Your task to perform on an android device: move a message to another label in the gmail app Image 0: 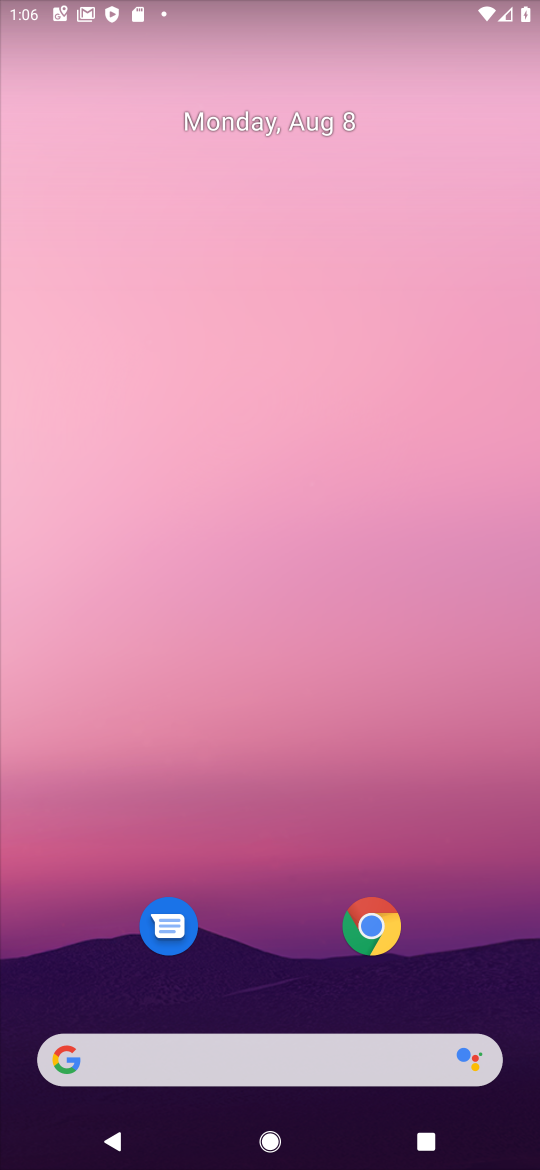
Step 0: click (298, 920)
Your task to perform on an android device: move a message to another label in the gmail app Image 1: 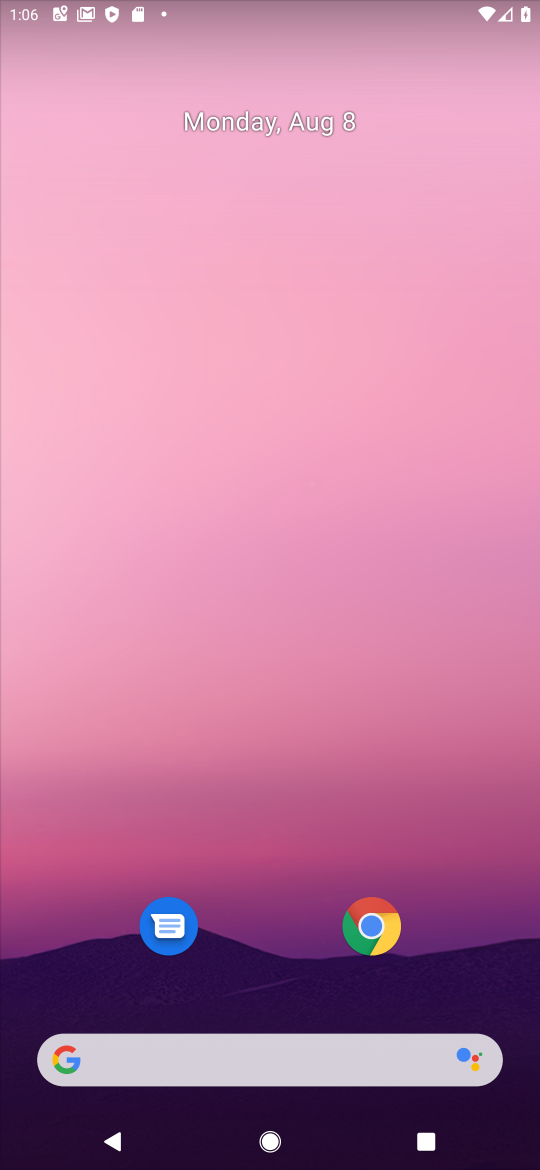
Step 1: drag from (278, 927) to (318, 213)
Your task to perform on an android device: move a message to another label in the gmail app Image 2: 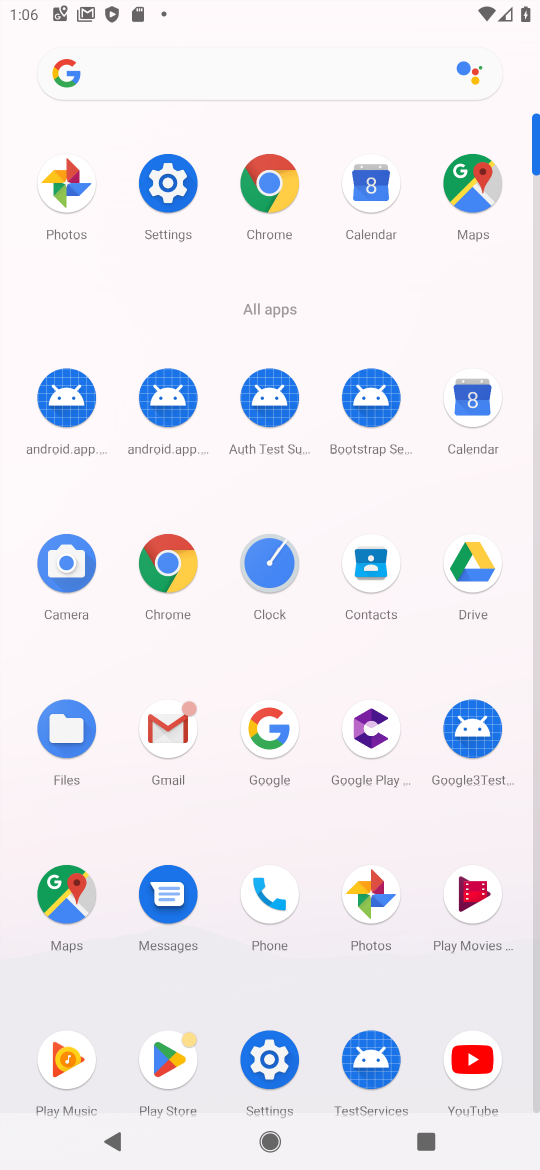
Step 2: click (174, 718)
Your task to perform on an android device: move a message to another label in the gmail app Image 3: 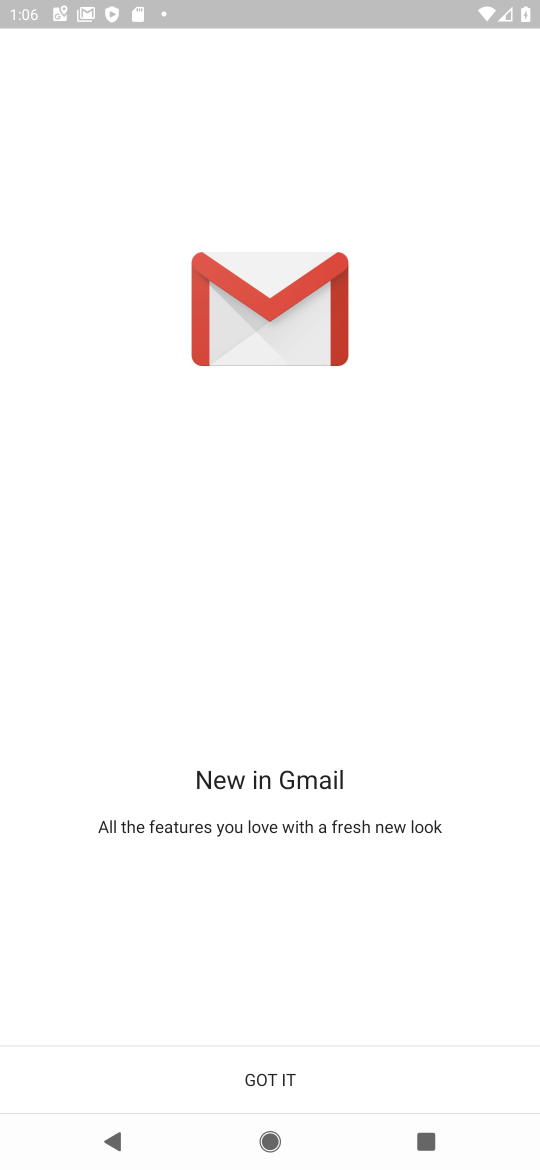
Step 3: click (303, 1079)
Your task to perform on an android device: move a message to another label in the gmail app Image 4: 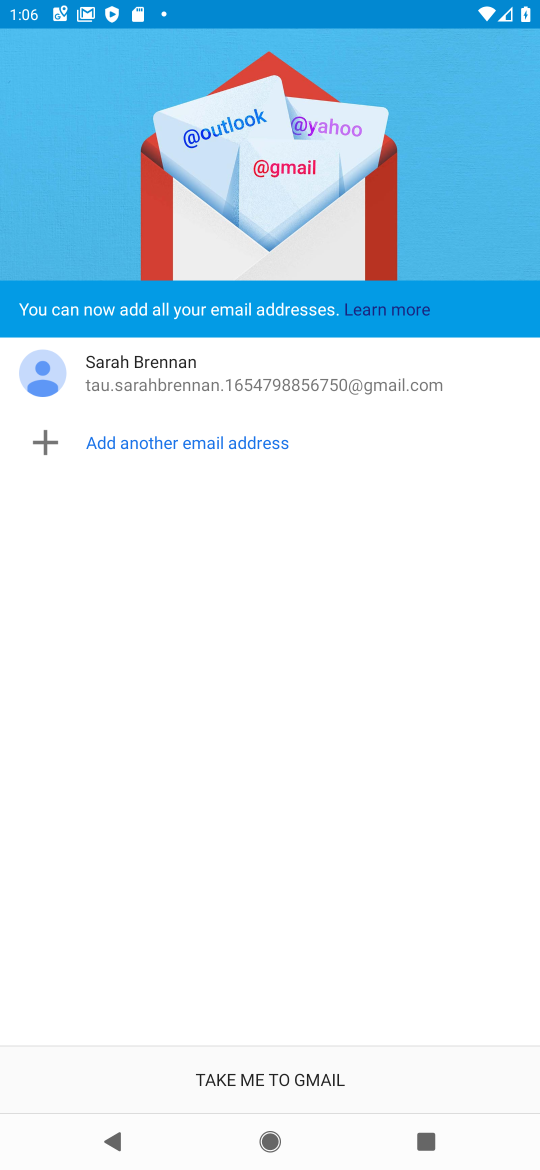
Step 4: click (303, 1079)
Your task to perform on an android device: move a message to another label in the gmail app Image 5: 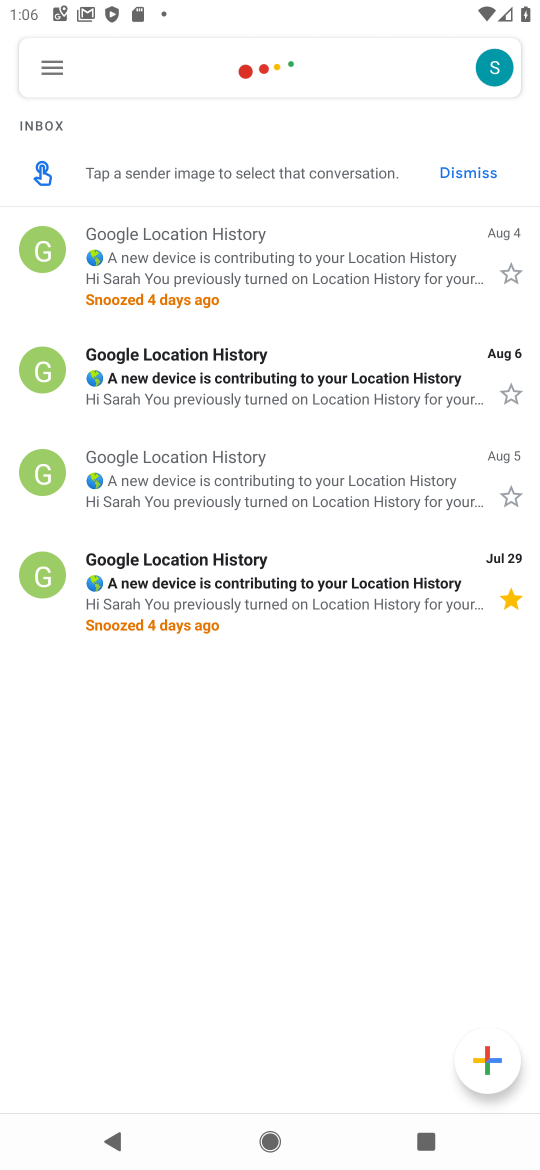
Step 5: click (165, 270)
Your task to perform on an android device: move a message to another label in the gmail app Image 6: 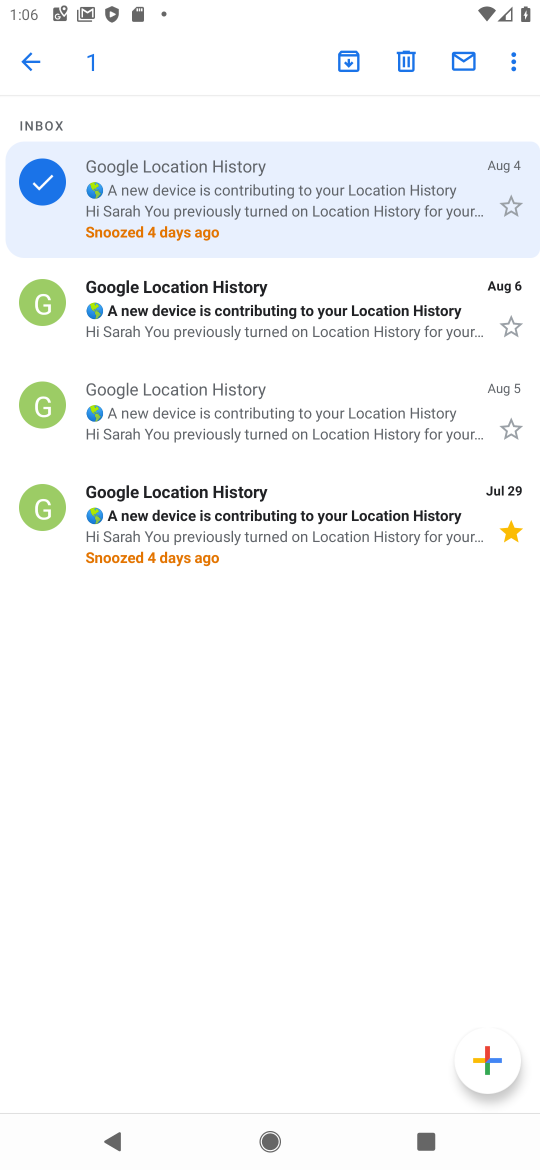
Step 6: click (511, 61)
Your task to perform on an android device: move a message to another label in the gmail app Image 7: 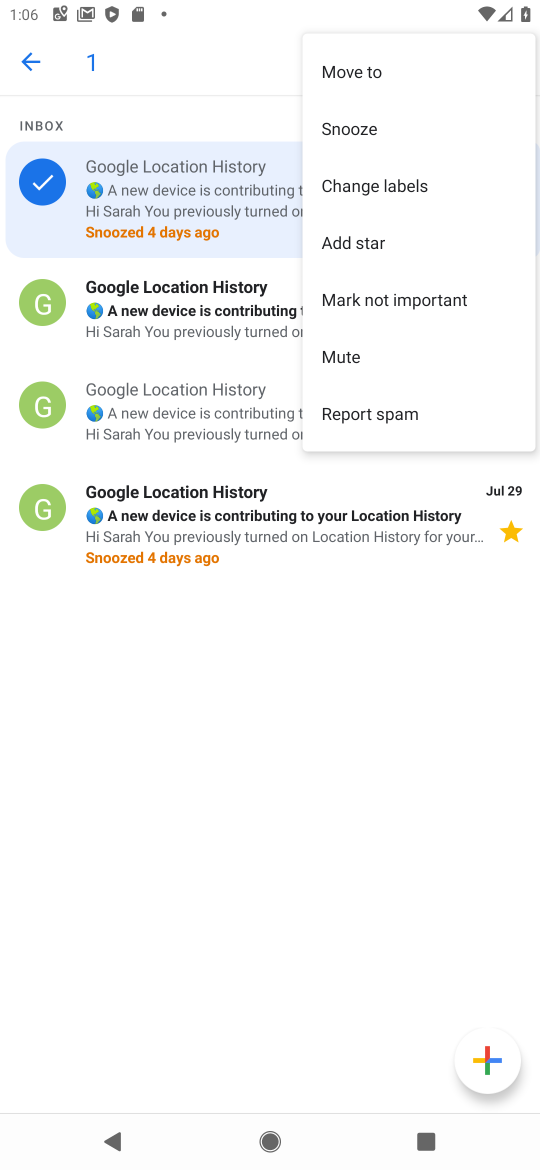
Step 7: click (377, 79)
Your task to perform on an android device: move a message to another label in the gmail app Image 8: 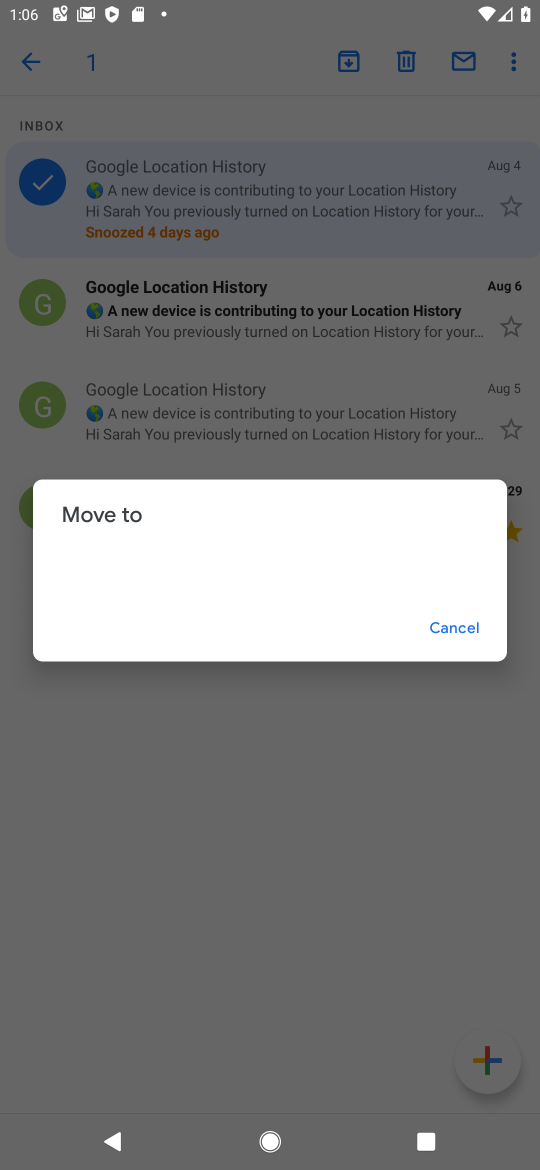
Step 8: click (449, 625)
Your task to perform on an android device: move a message to another label in the gmail app Image 9: 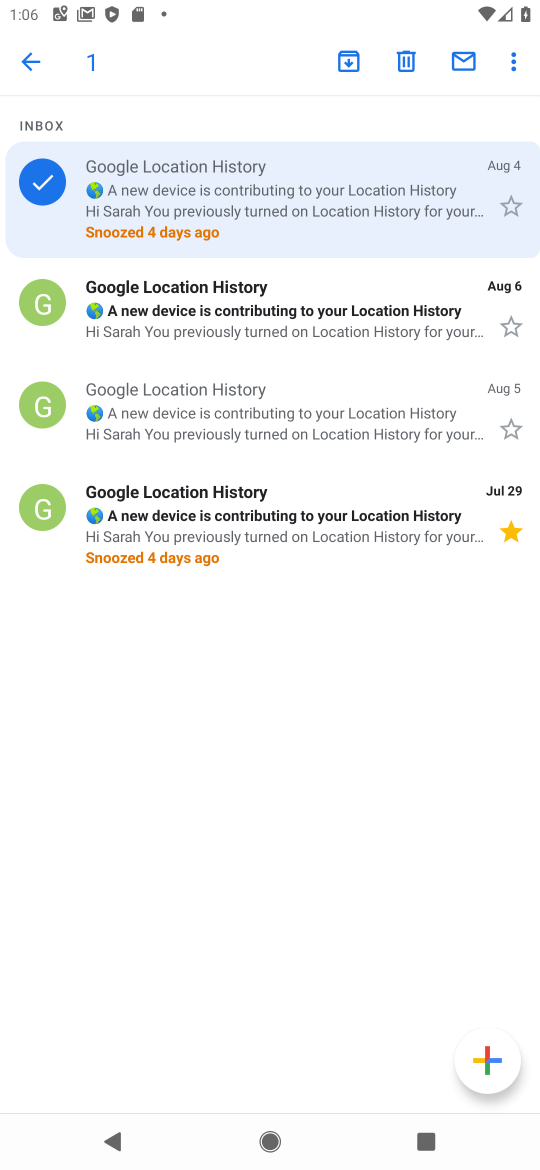
Step 9: task complete